Your task to perform on an android device: turn off translation in the chrome app Image 0: 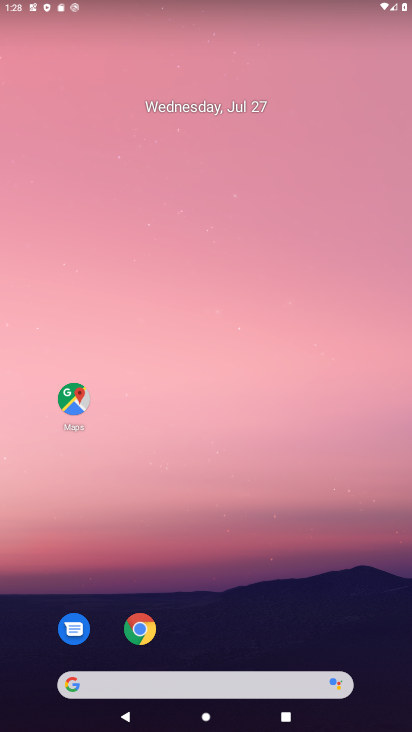
Step 0: click (139, 621)
Your task to perform on an android device: turn off translation in the chrome app Image 1: 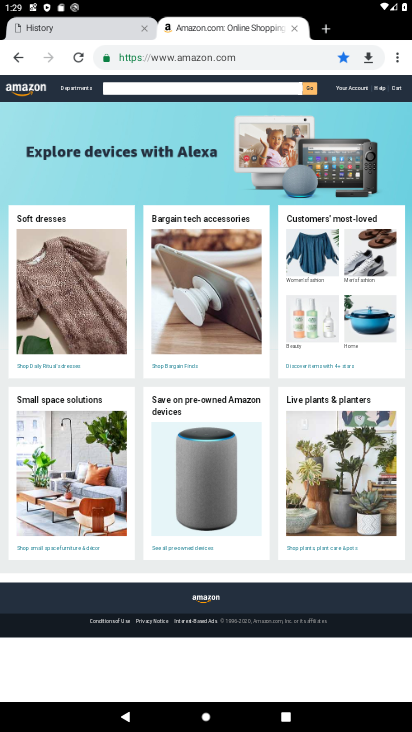
Step 1: click (391, 49)
Your task to perform on an android device: turn off translation in the chrome app Image 2: 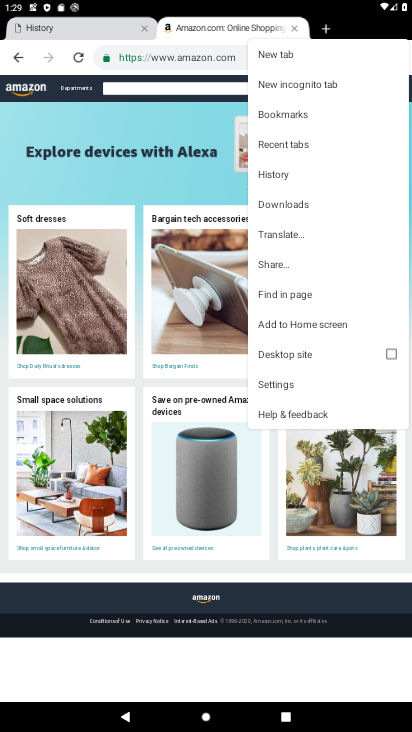
Step 2: click (272, 378)
Your task to perform on an android device: turn off translation in the chrome app Image 3: 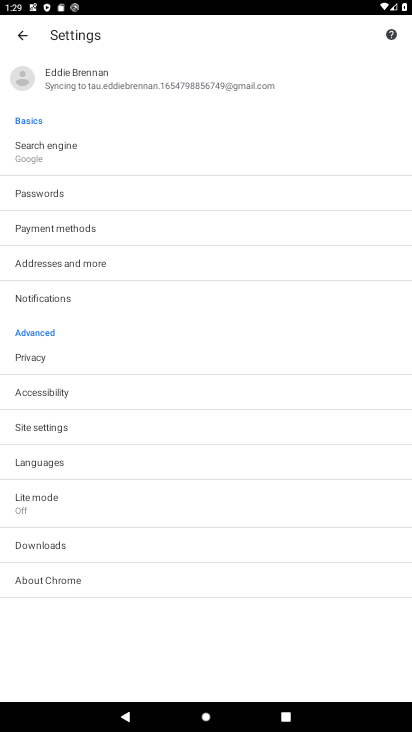
Step 3: click (107, 460)
Your task to perform on an android device: turn off translation in the chrome app Image 4: 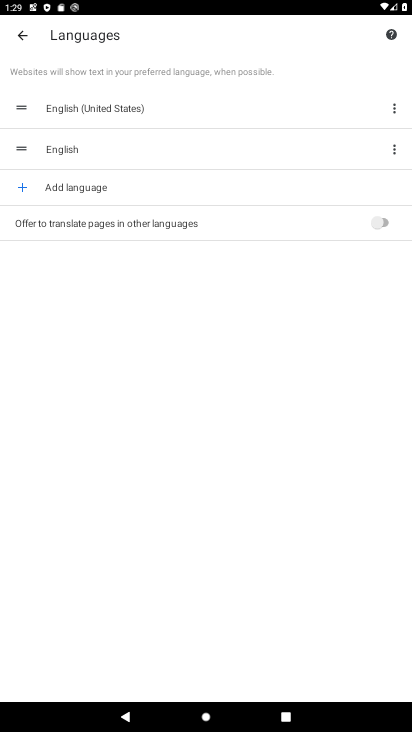
Step 4: task complete